Your task to perform on an android device: Show the shopping cart on costco.com. Add beats solo 3 to the cart on costco.com, then select checkout. Image 0: 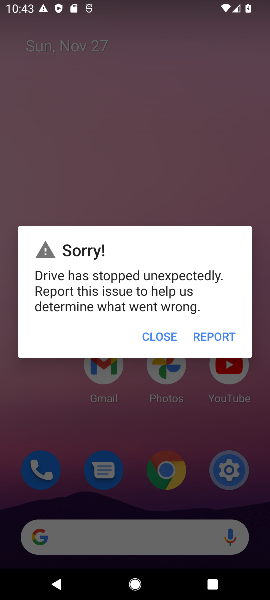
Step 0: press home button
Your task to perform on an android device: Show the shopping cart on costco.com. Add beats solo 3 to the cart on costco.com, then select checkout. Image 1: 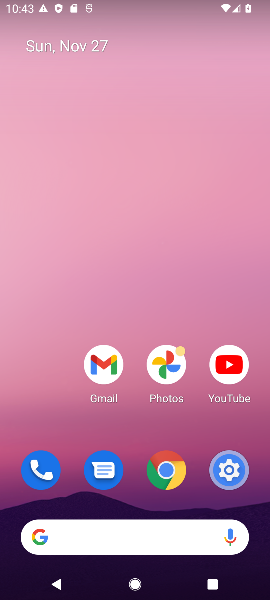
Step 1: click (107, 535)
Your task to perform on an android device: Show the shopping cart on costco.com. Add beats solo 3 to the cart on costco.com, then select checkout. Image 2: 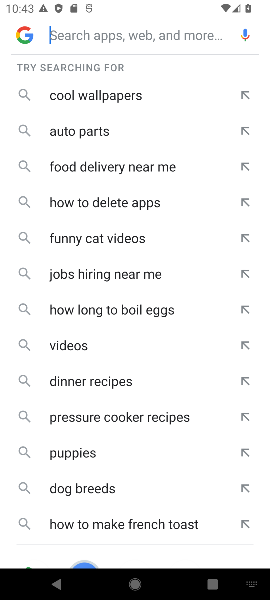
Step 2: type "costco.com"
Your task to perform on an android device: Show the shopping cart on costco.com. Add beats solo 3 to the cart on costco.com, then select checkout. Image 3: 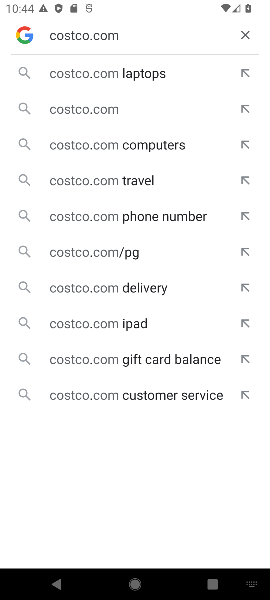
Step 3: click (68, 100)
Your task to perform on an android device: Show the shopping cart on costco.com. Add beats solo 3 to the cart on costco.com, then select checkout. Image 4: 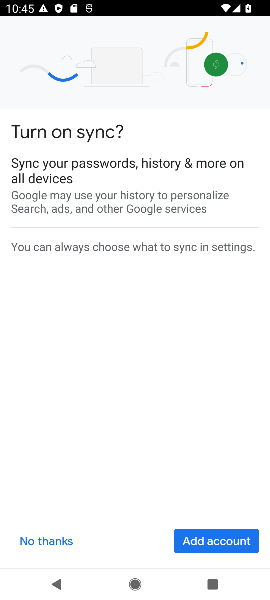
Step 4: click (58, 543)
Your task to perform on an android device: Show the shopping cart on costco.com. Add beats solo 3 to the cart on costco.com, then select checkout. Image 5: 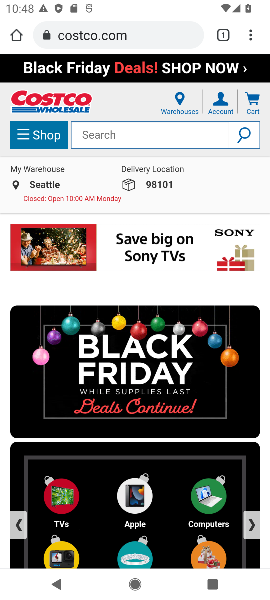
Step 5: task complete